Your task to perform on an android device: Open Reddit.com Image 0: 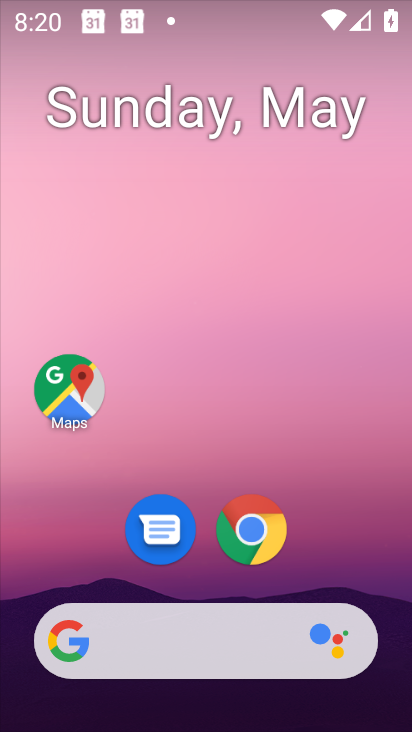
Step 0: click (201, 647)
Your task to perform on an android device: Open Reddit.com Image 1: 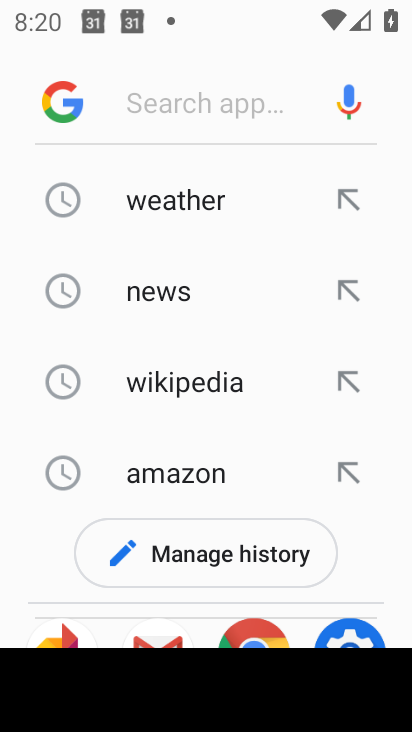
Step 1: type "reddit.com"
Your task to perform on an android device: Open Reddit.com Image 2: 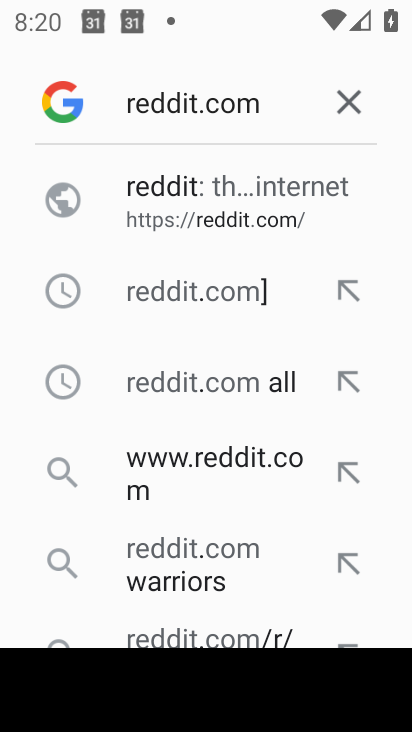
Step 2: click (216, 160)
Your task to perform on an android device: Open Reddit.com Image 3: 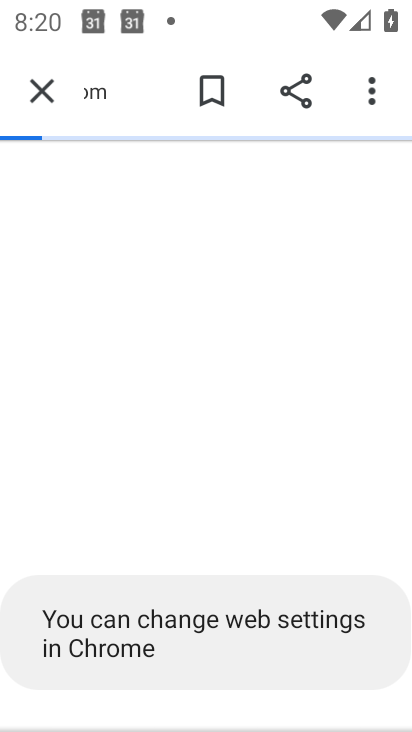
Step 3: task complete